Your task to perform on an android device: Open accessibility settings Image 0: 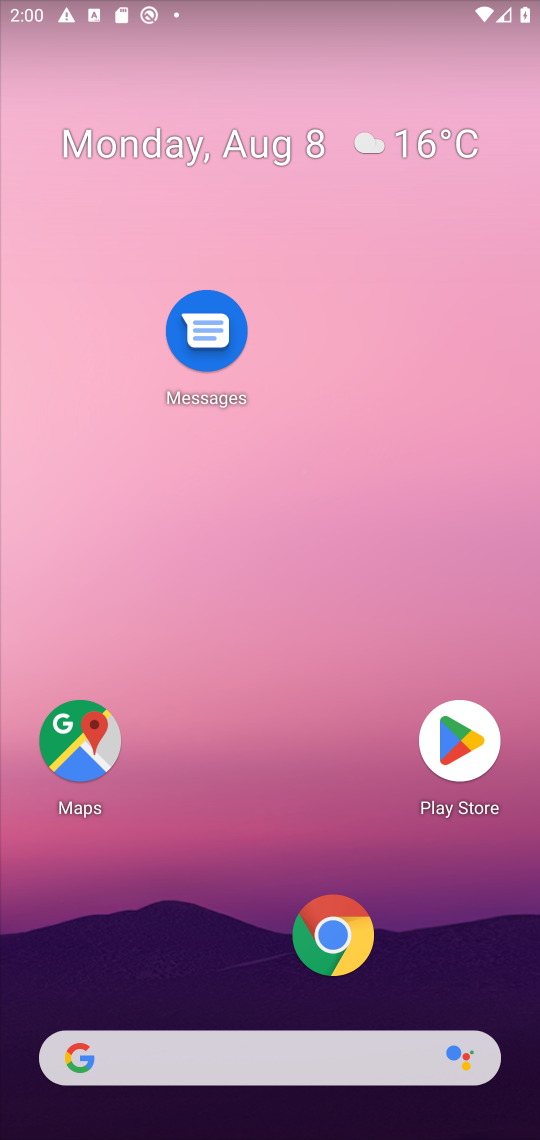
Step 0: drag from (340, 1043) to (293, 335)
Your task to perform on an android device: Open accessibility settings Image 1: 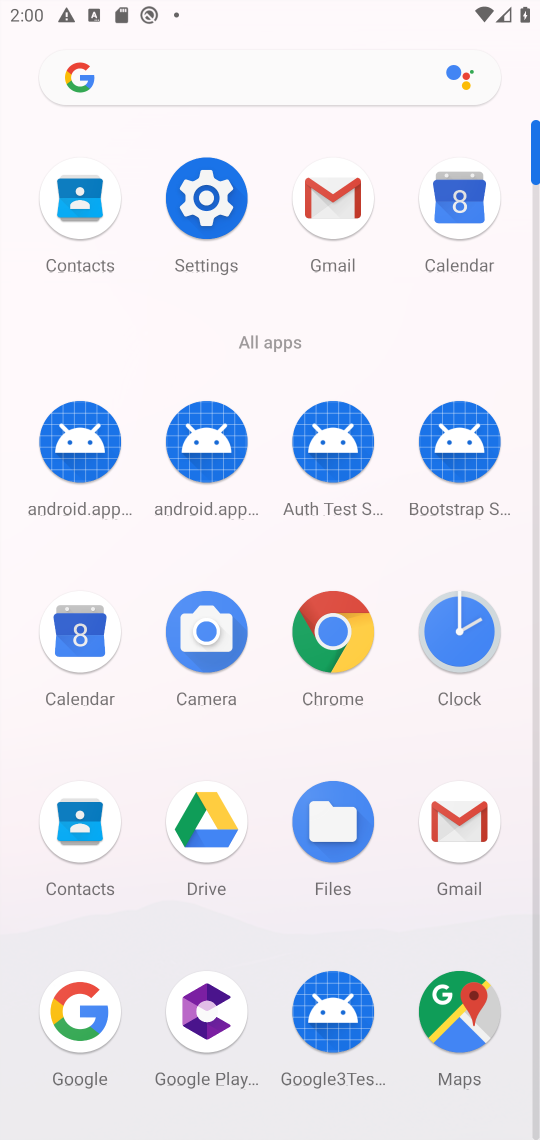
Step 1: click (209, 211)
Your task to perform on an android device: Open accessibility settings Image 2: 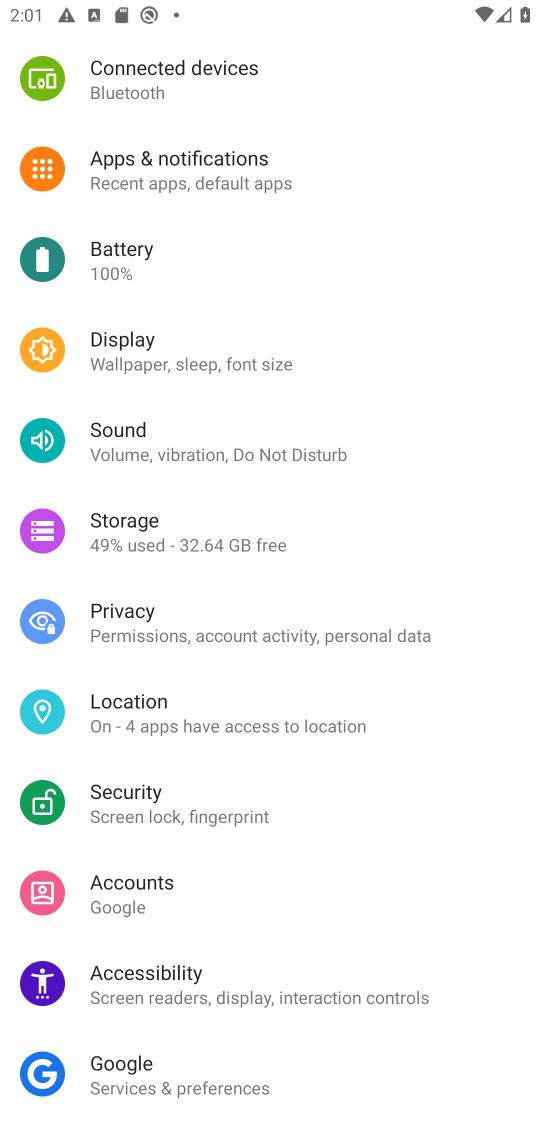
Step 2: click (302, 975)
Your task to perform on an android device: Open accessibility settings Image 3: 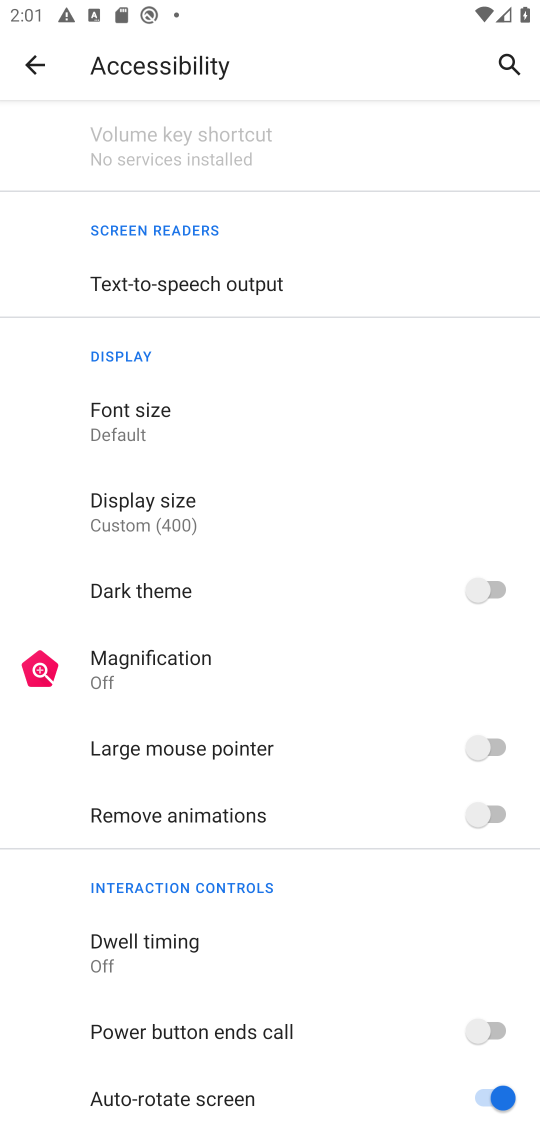
Step 3: task complete